Your task to perform on an android device: turn on notifications settings in the gmail app Image 0: 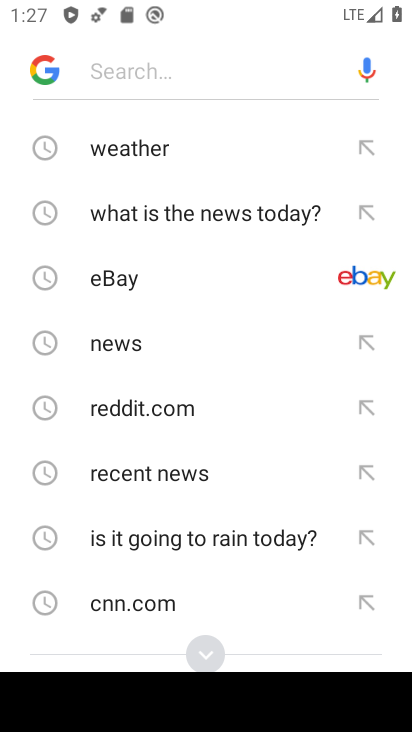
Step 0: press home button
Your task to perform on an android device: turn on notifications settings in the gmail app Image 1: 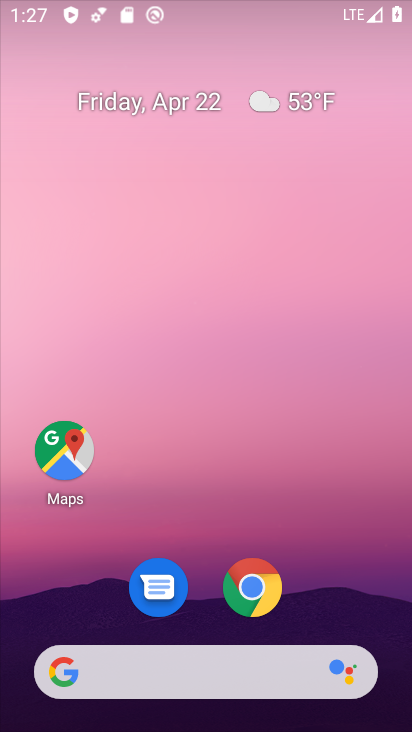
Step 1: drag from (274, 545) to (236, 202)
Your task to perform on an android device: turn on notifications settings in the gmail app Image 2: 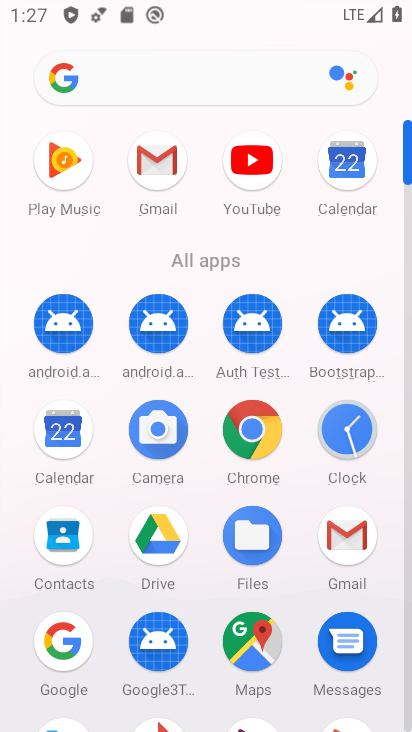
Step 2: click (334, 543)
Your task to perform on an android device: turn on notifications settings in the gmail app Image 3: 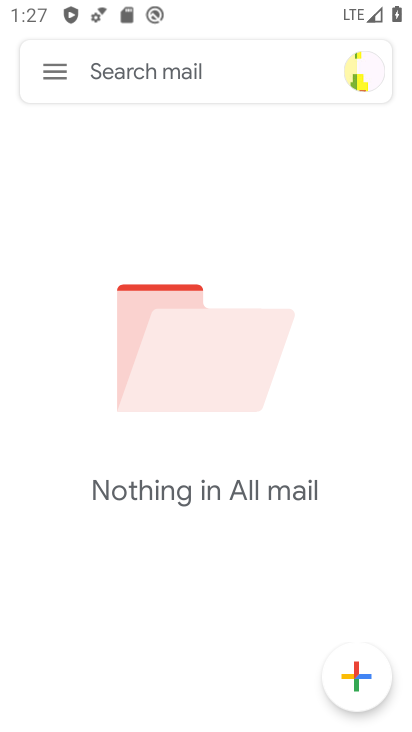
Step 3: click (61, 84)
Your task to perform on an android device: turn on notifications settings in the gmail app Image 4: 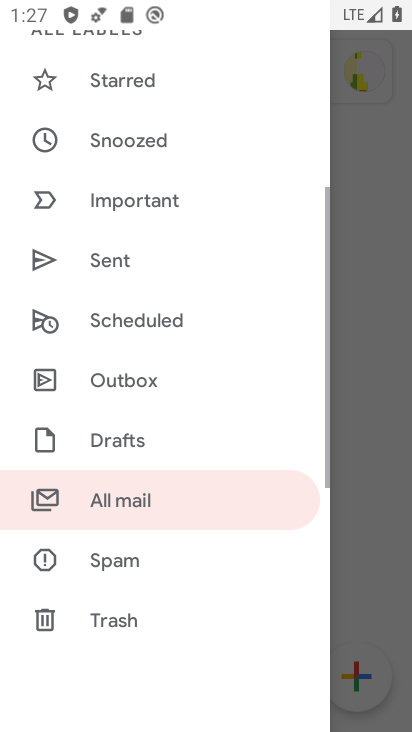
Step 4: drag from (164, 582) to (166, 252)
Your task to perform on an android device: turn on notifications settings in the gmail app Image 5: 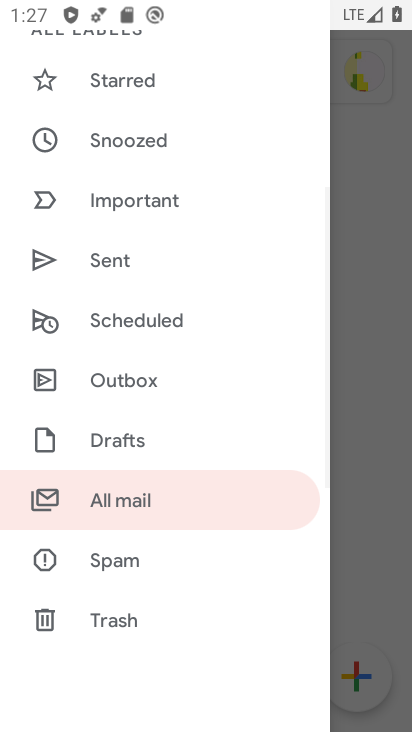
Step 5: drag from (155, 630) to (200, 275)
Your task to perform on an android device: turn on notifications settings in the gmail app Image 6: 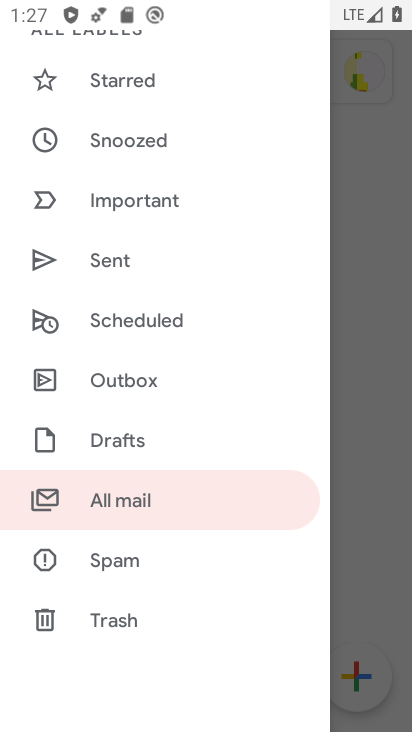
Step 6: drag from (156, 596) to (198, 0)
Your task to perform on an android device: turn on notifications settings in the gmail app Image 7: 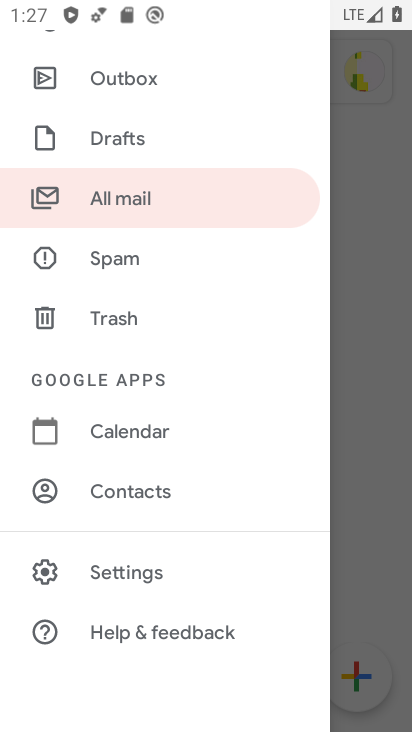
Step 7: click (132, 568)
Your task to perform on an android device: turn on notifications settings in the gmail app Image 8: 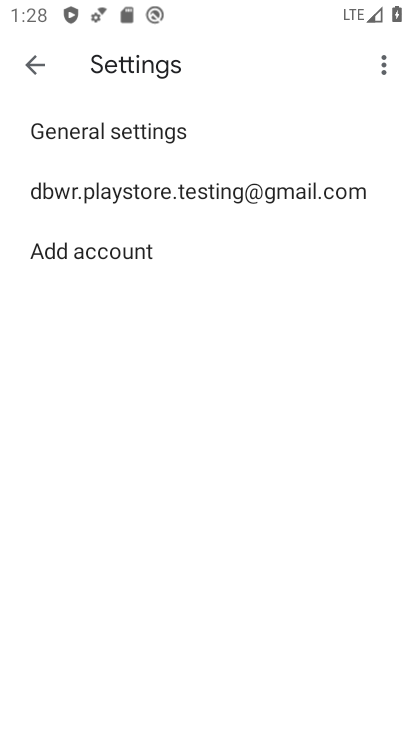
Step 8: click (168, 140)
Your task to perform on an android device: turn on notifications settings in the gmail app Image 9: 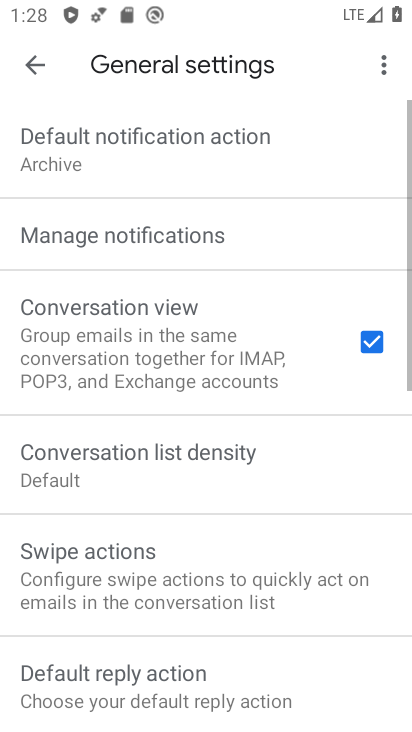
Step 9: click (121, 236)
Your task to perform on an android device: turn on notifications settings in the gmail app Image 10: 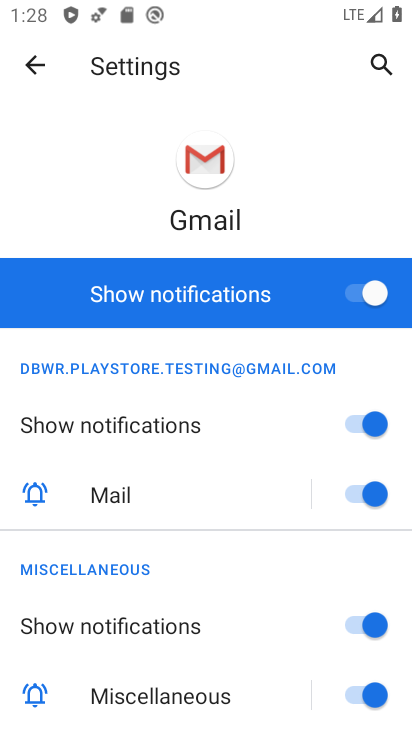
Step 10: task complete